Your task to perform on an android device: Go to settings Image 0: 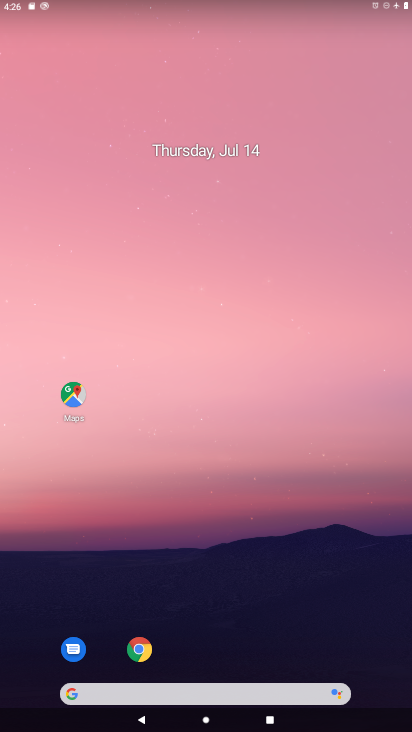
Step 0: drag from (241, 667) to (247, 95)
Your task to perform on an android device: Go to settings Image 1: 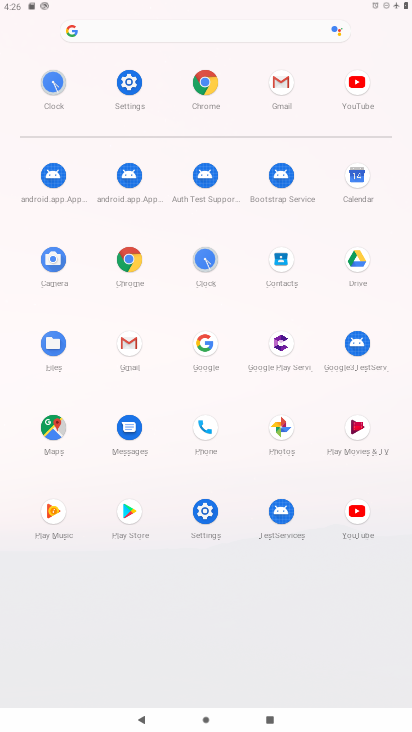
Step 1: click (203, 530)
Your task to perform on an android device: Go to settings Image 2: 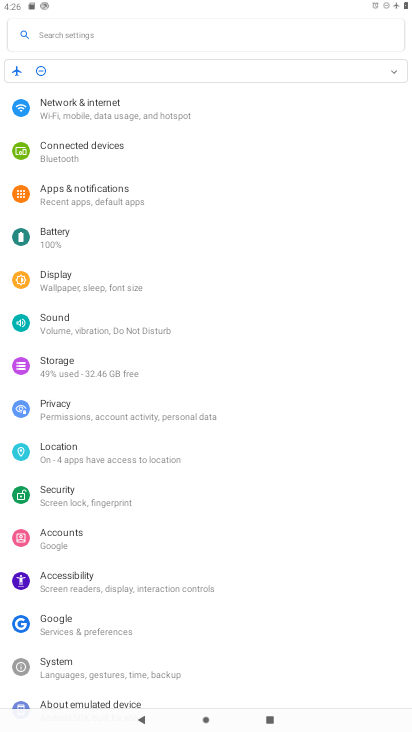
Step 2: task complete